Your task to perform on an android device: toggle notifications settings in the gmail app Image 0: 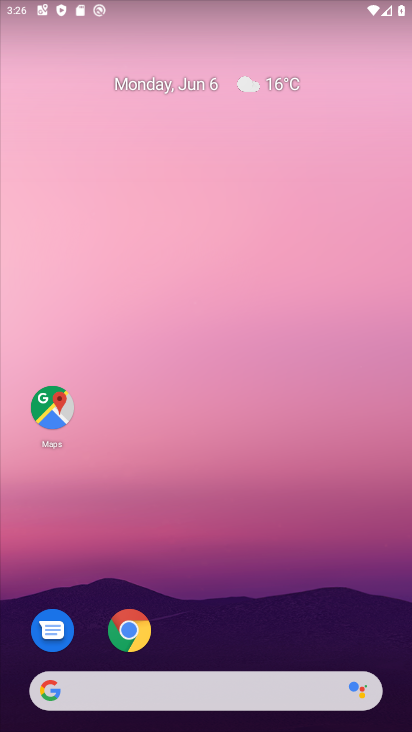
Step 0: drag from (240, 519) to (292, 142)
Your task to perform on an android device: toggle notifications settings in the gmail app Image 1: 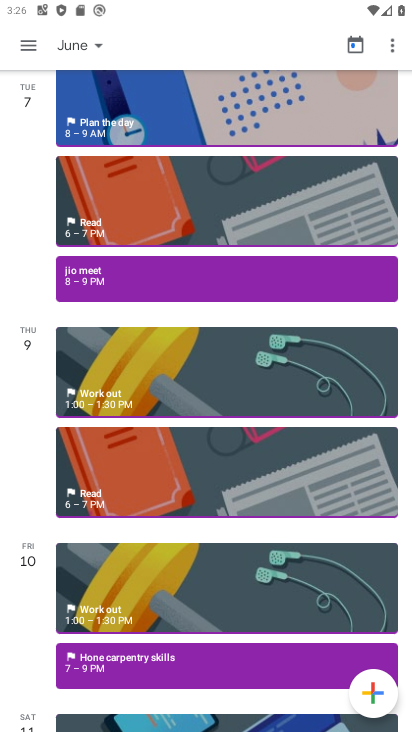
Step 1: press back button
Your task to perform on an android device: toggle notifications settings in the gmail app Image 2: 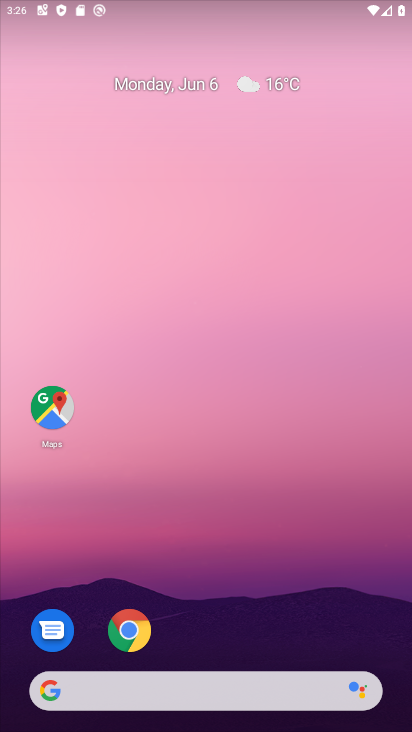
Step 2: drag from (187, 613) to (252, 147)
Your task to perform on an android device: toggle notifications settings in the gmail app Image 3: 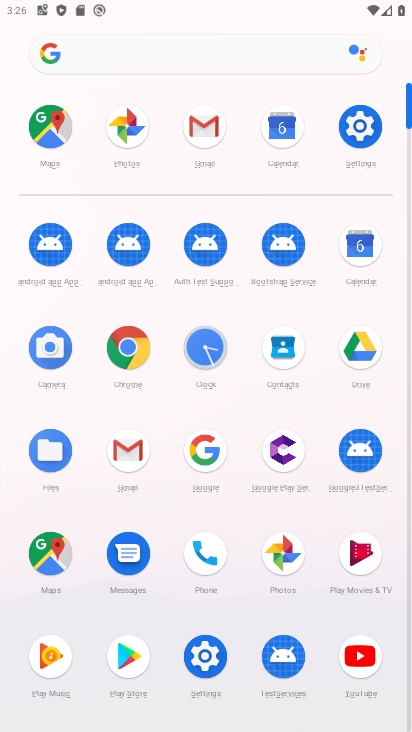
Step 3: click (215, 114)
Your task to perform on an android device: toggle notifications settings in the gmail app Image 4: 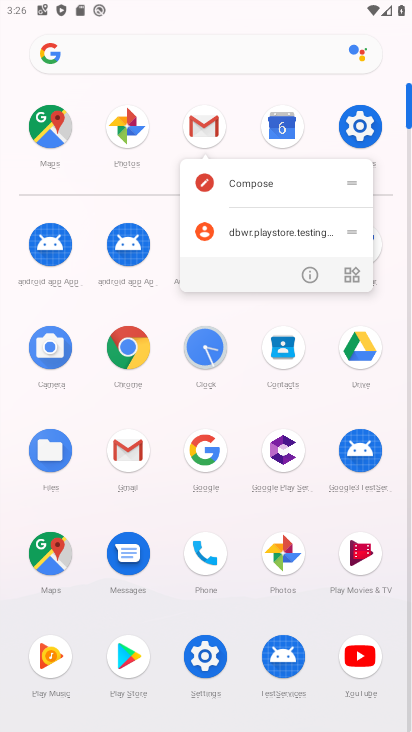
Step 4: click (314, 270)
Your task to perform on an android device: toggle notifications settings in the gmail app Image 5: 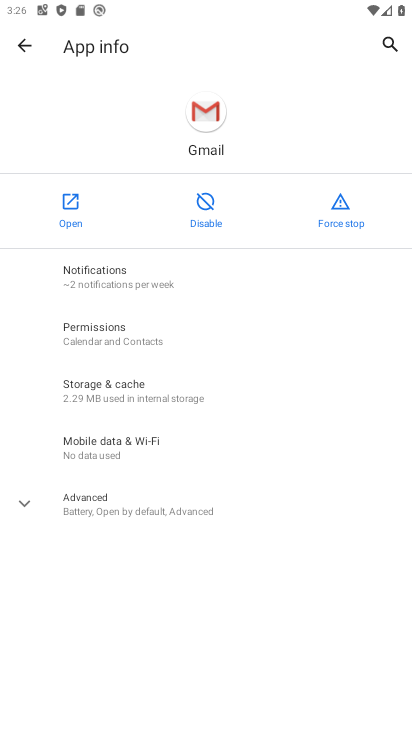
Step 5: click (93, 281)
Your task to perform on an android device: toggle notifications settings in the gmail app Image 6: 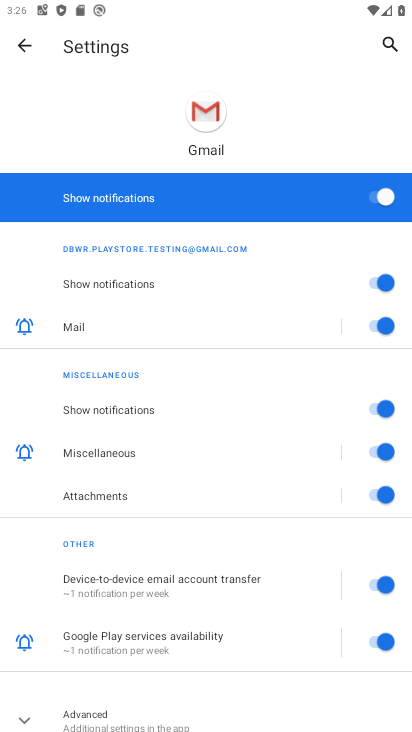
Step 6: click (369, 195)
Your task to perform on an android device: toggle notifications settings in the gmail app Image 7: 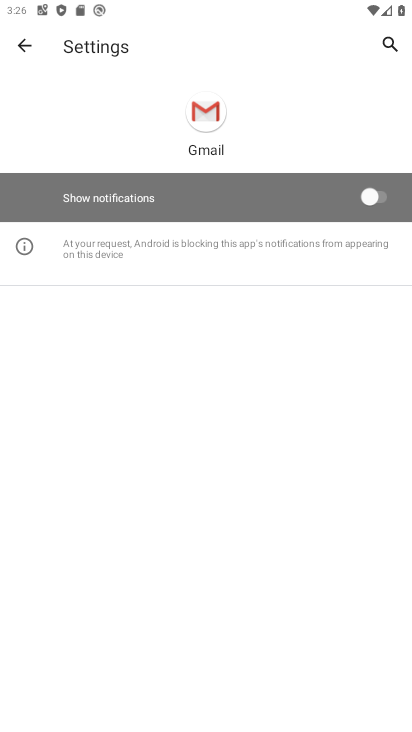
Step 7: task complete